Your task to perform on an android device: see creations saved in the google photos Image 0: 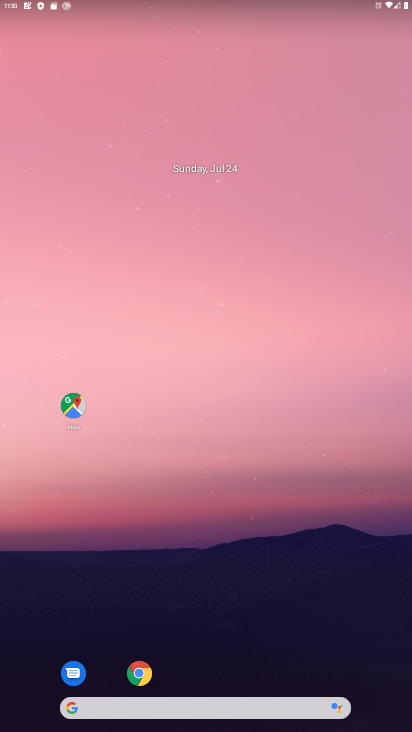
Step 0: drag from (292, 522) to (266, 145)
Your task to perform on an android device: see creations saved in the google photos Image 1: 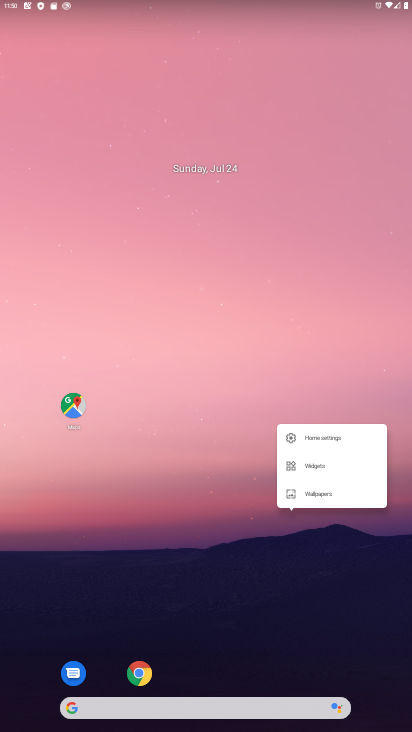
Step 1: click (213, 562)
Your task to perform on an android device: see creations saved in the google photos Image 2: 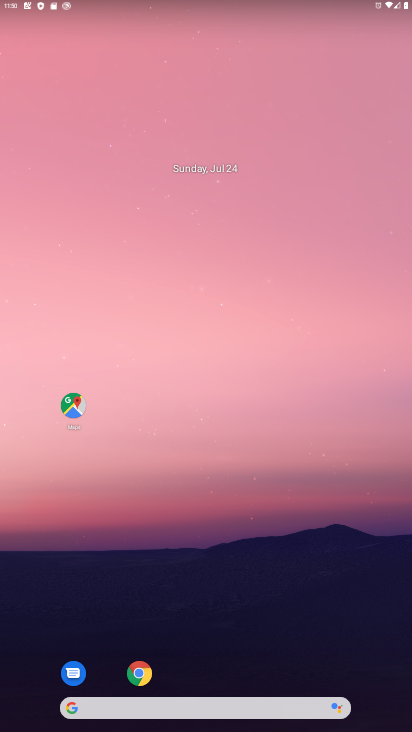
Step 2: drag from (202, 527) to (206, 75)
Your task to perform on an android device: see creations saved in the google photos Image 3: 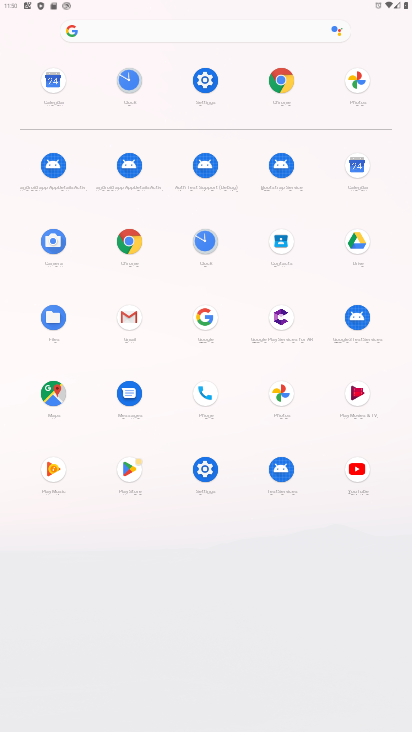
Step 3: click (282, 384)
Your task to perform on an android device: see creations saved in the google photos Image 4: 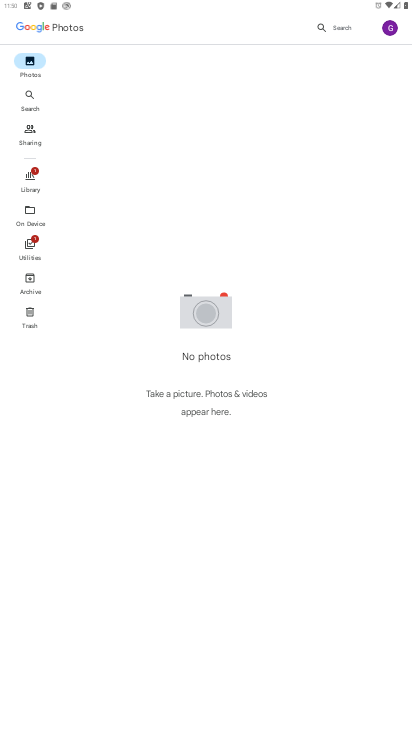
Step 4: click (33, 142)
Your task to perform on an android device: see creations saved in the google photos Image 5: 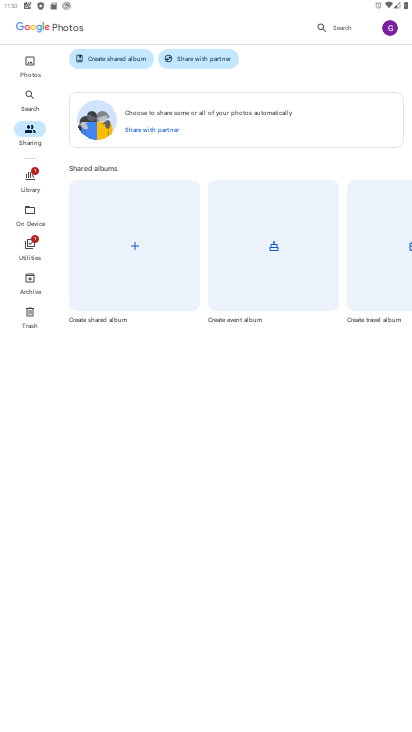
Step 5: click (22, 186)
Your task to perform on an android device: see creations saved in the google photos Image 6: 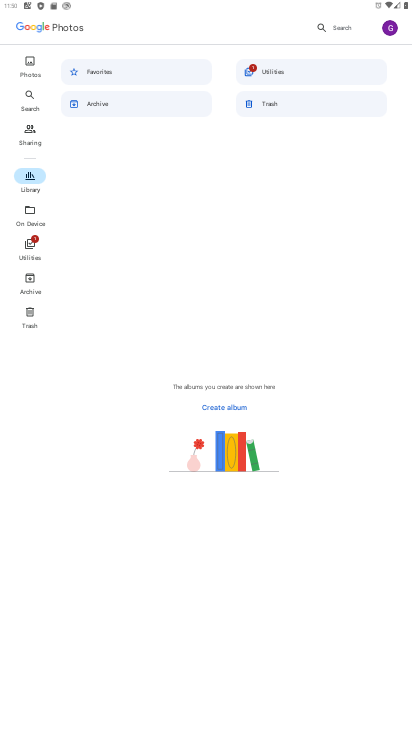
Step 6: click (34, 212)
Your task to perform on an android device: see creations saved in the google photos Image 7: 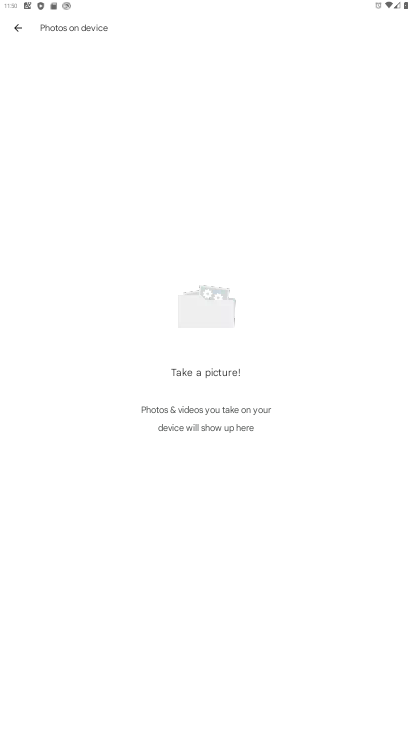
Step 7: click (13, 16)
Your task to perform on an android device: see creations saved in the google photos Image 8: 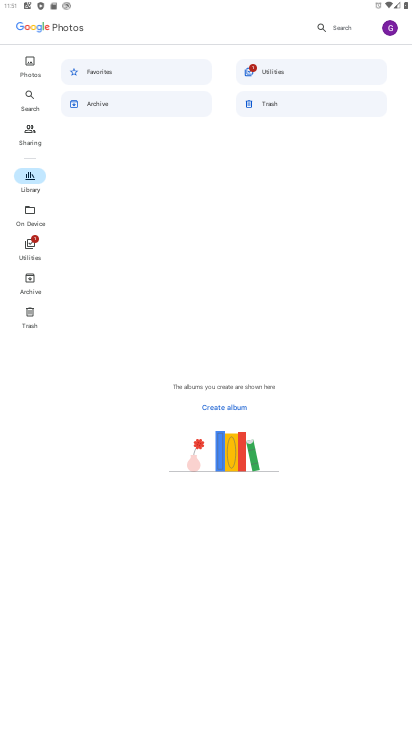
Step 8: task complete